Your task to perform on an android device: delete location history Image 0: 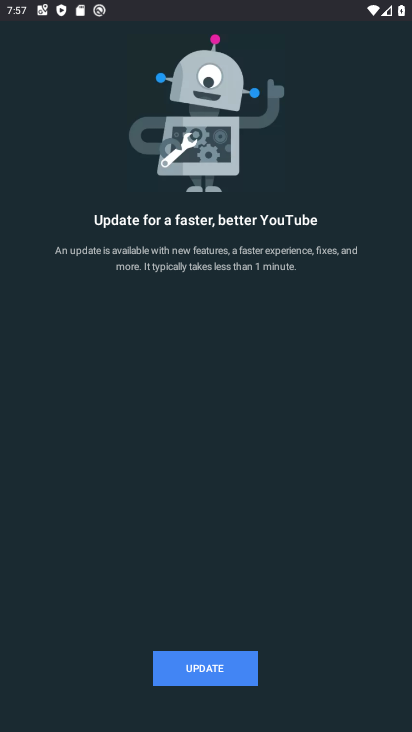
Step 0: press back button
Your task to perform on an android device: delete location history Image 1: 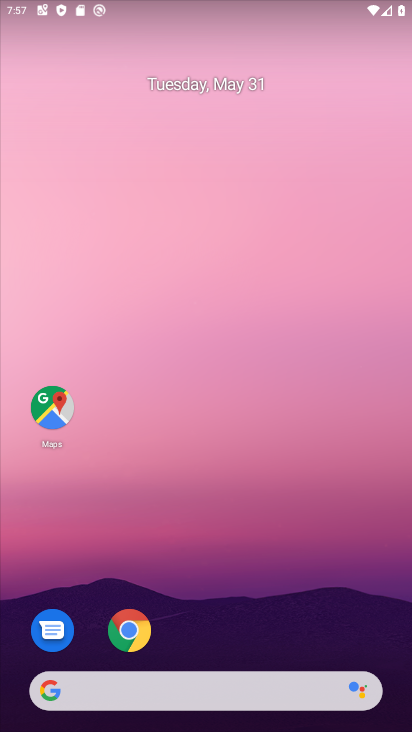
Step 1: click (141, 623)
Your task to perform on an android device: delete location history Image 2: 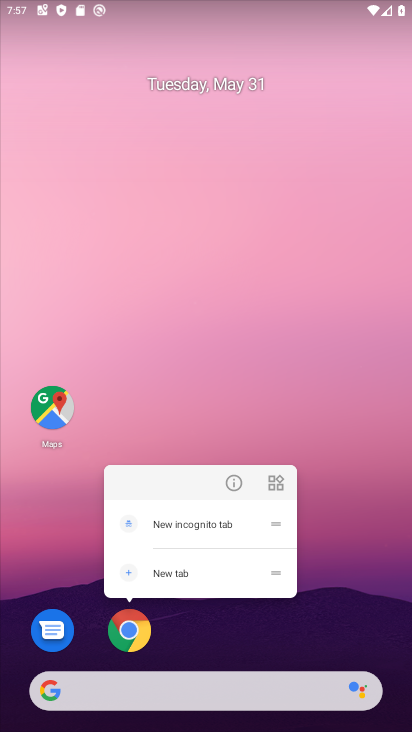
Step 2: click (121, 629)
Your task to perform on an android device: delete location history Image 3: 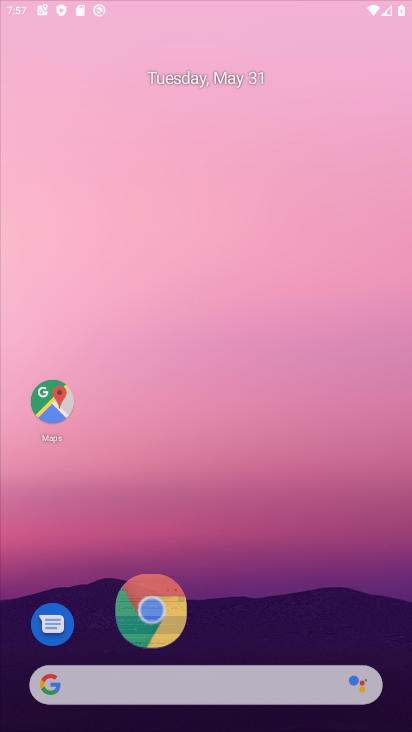
Step 3: click (144, 388)
Your task to perform on an android device: delete location history Image 4: 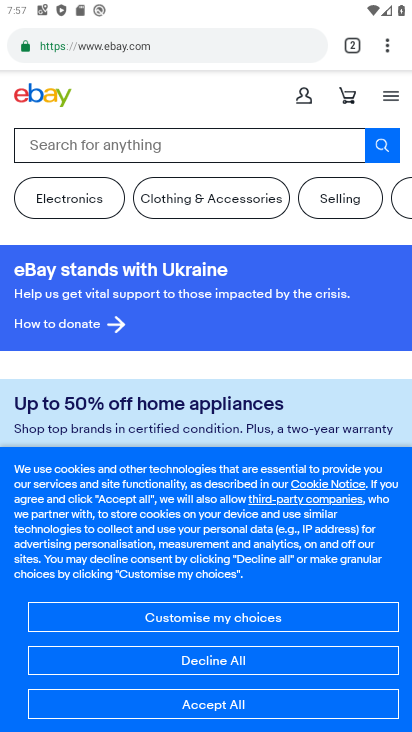
Step 4: press home button
Your task to perform on an android device: delete location history Image 5: 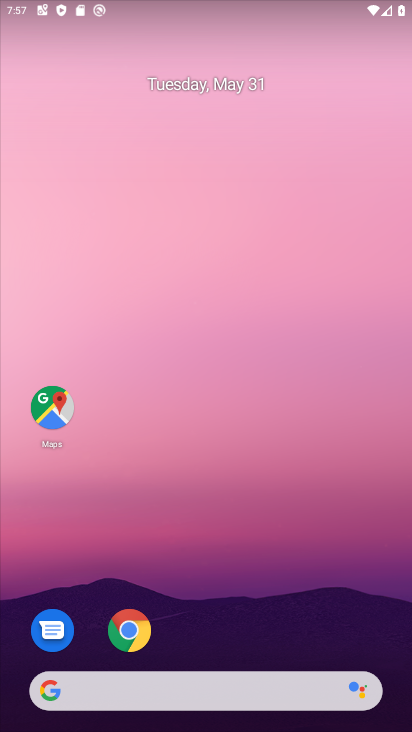
Step 5: click (56, 413)
Your task to perform on an android device: delete location history Image 6: 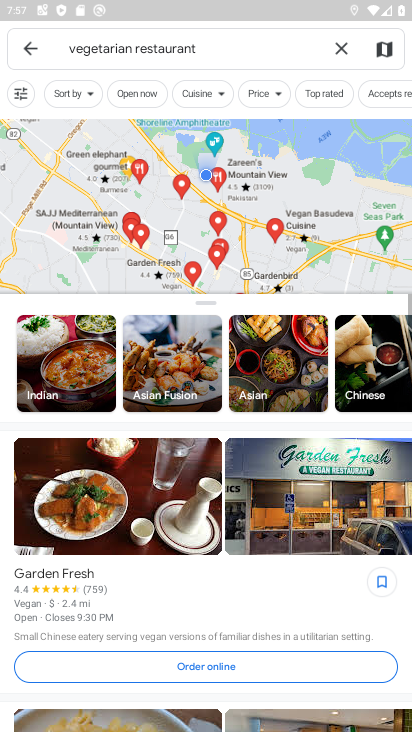
Step 6: click (335, 49)
Your task to perform on an android device: delete location history Image 7: 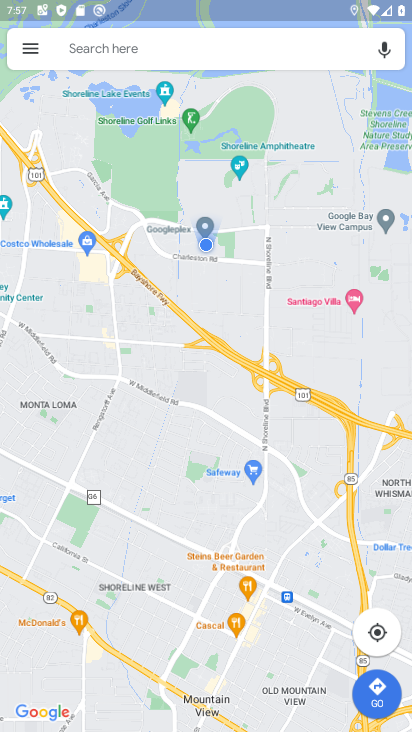
Step 7: click (29, 55)
Your task to perform on an android device: delete location history Image 8: 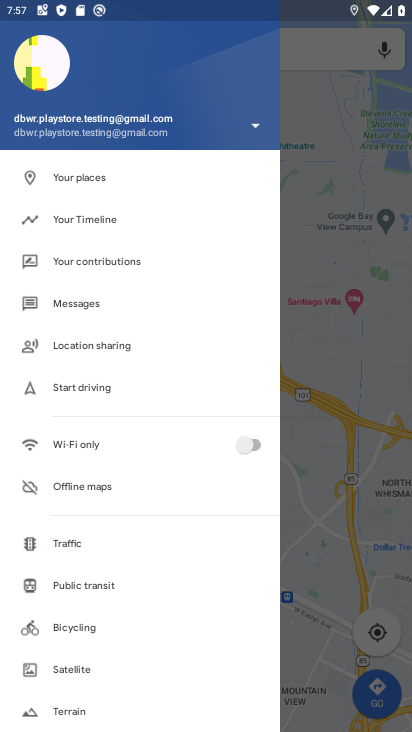
Step 8: click (79, 213)
Your task to perform on an android device: delete location history Image 9: 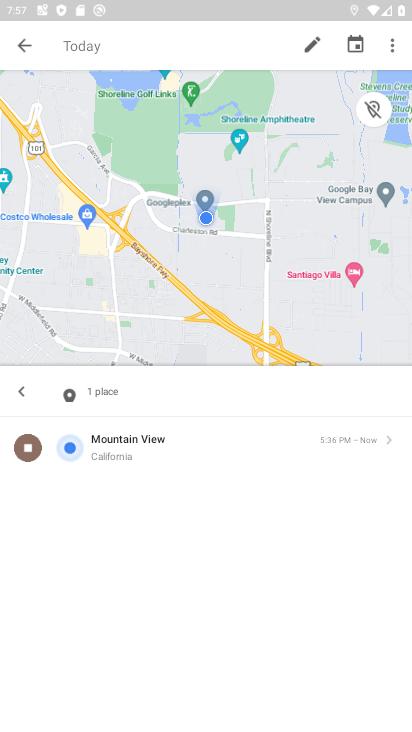
Step 9: click (394, 48)
Your task to perform on an android device: delete location history Image 10: 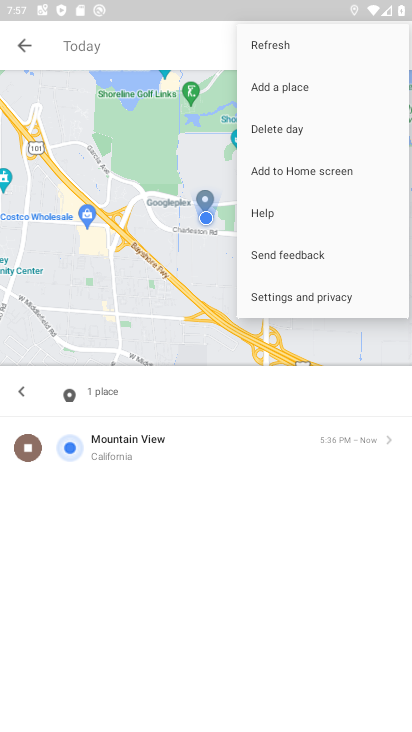
Step 10: click (298, 302)
Your task to perform on an android device: delete location history Image 11: 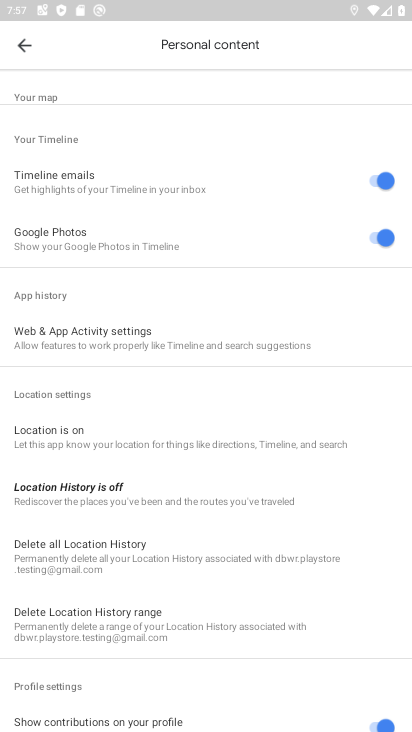
Step 11: click (132, 548)
Your task to perform on an android device: delete location history Image 12: 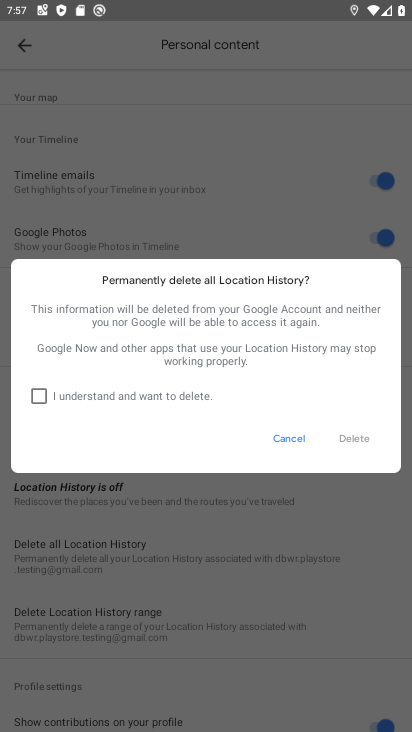
Step 12: click (35, 384)
Your task to perform on an android device: delete location history Image 13: 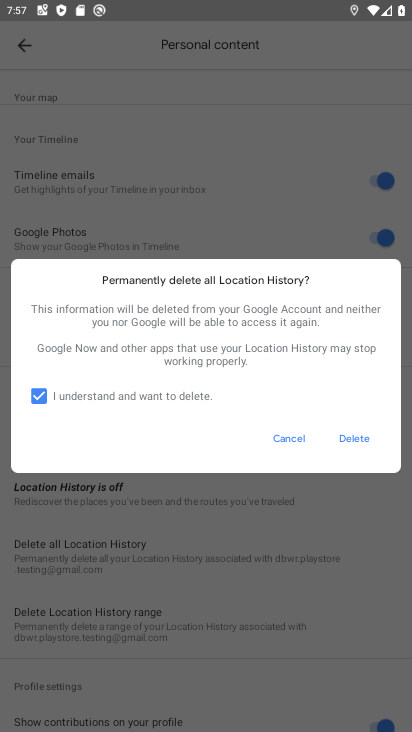
Step 13: click (352, 432)
Your task to perform on an android device: delete location history Image 14: 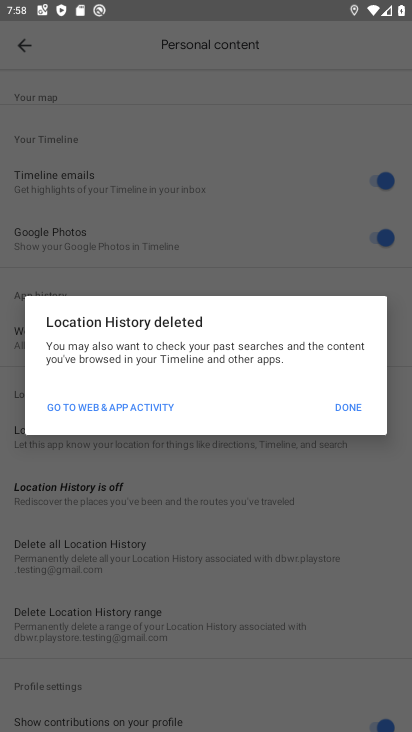
Step 14: click (359, 396)
Your task to perform on an android device: delete location history Image 15: 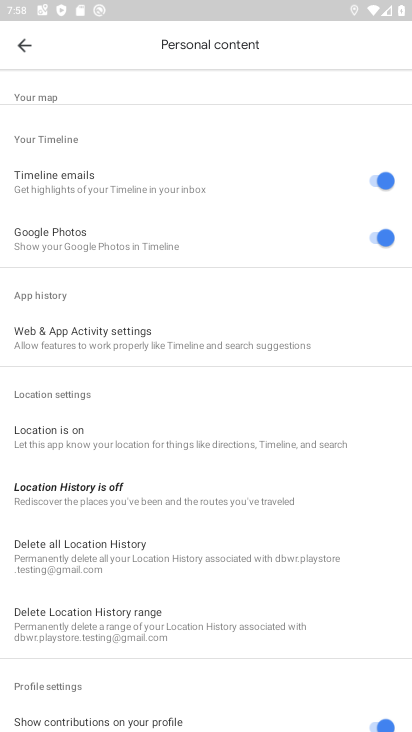
Step 15: task complete